Your task to perform on an android device: turn off improve location accuracy Image 0: 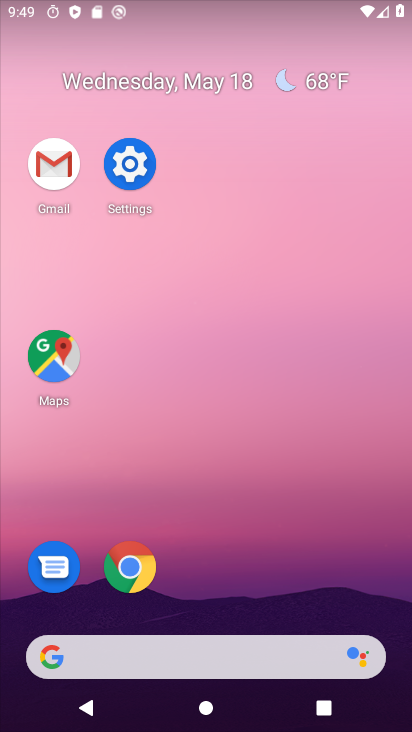
Step 0: click (139, 154)
Your task to perform on an android device: turn off improve location accuracy Image 1: 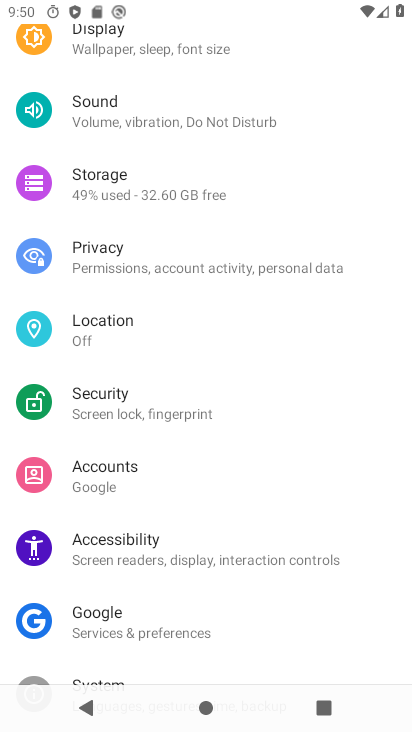
Step 1: click (182, 349)
Your task to perform on an android device: turn off improve location accuracy Image 2: 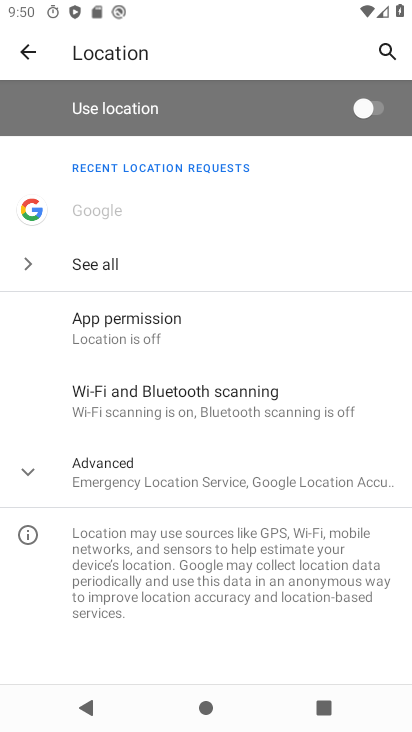
Step 2: click (190, 477)
Your task to perform on an android device: turn off improve location accuracy Image 3: 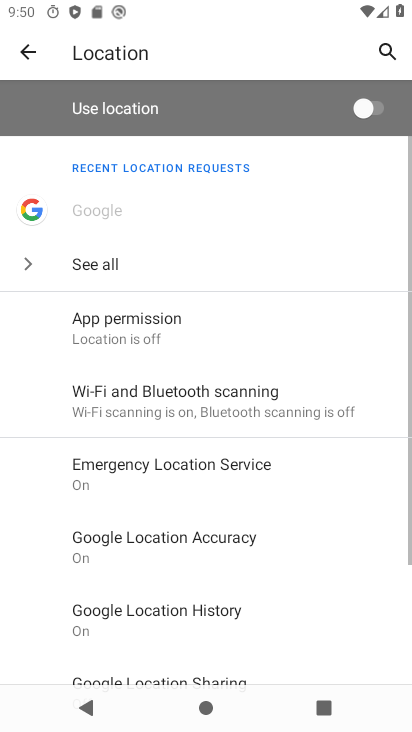
Step 3: click (199, 545)
Your task to perform on an android device: turn off improve location accuracy Image 4: 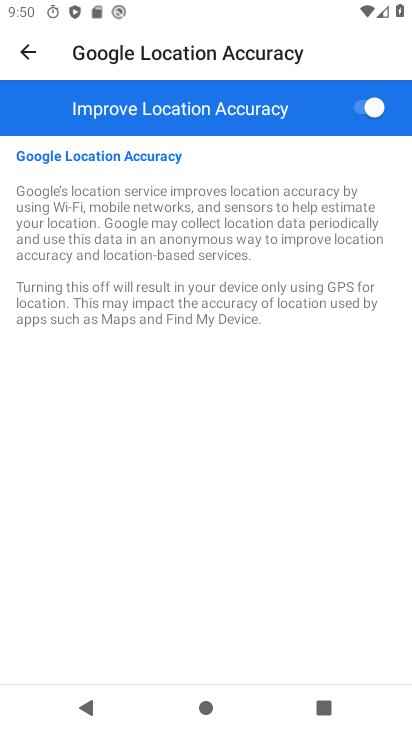
Step 4: click (355, 105)
Your task to perform on an android device: turn off improve location accuracy Image 5: 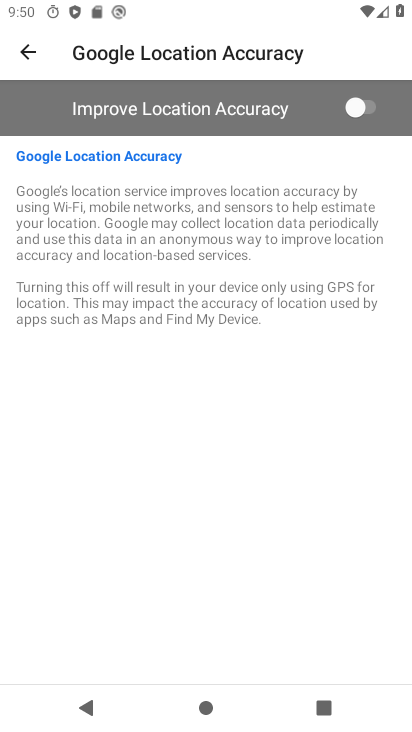
Step 5: task complete